Your task to perform on an android device: Go to privacy settings Image 0: 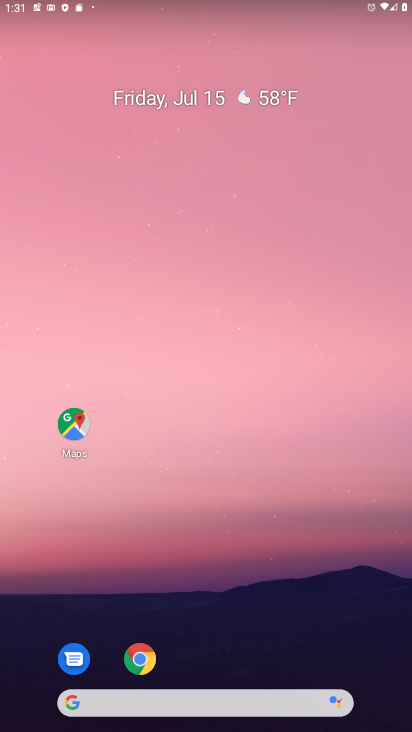
Step 0: drag from (240, 672) to (230, 210)
Your task to perform on an android device: Go to privacy settings Image 1: 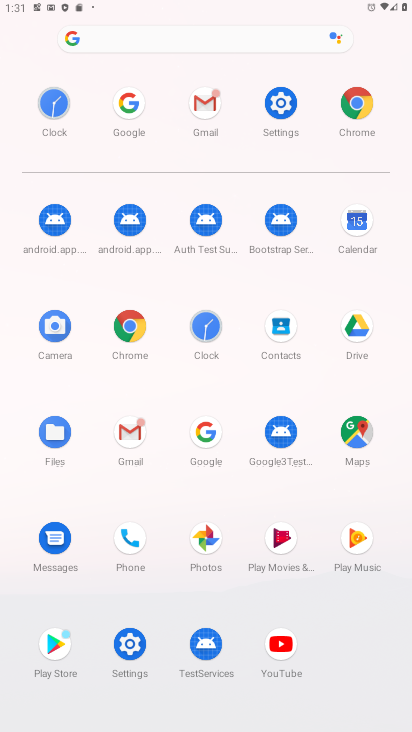
Step 1: click (291, 108)
Your task to perform on an android device: Go to privacy settings Image 2: 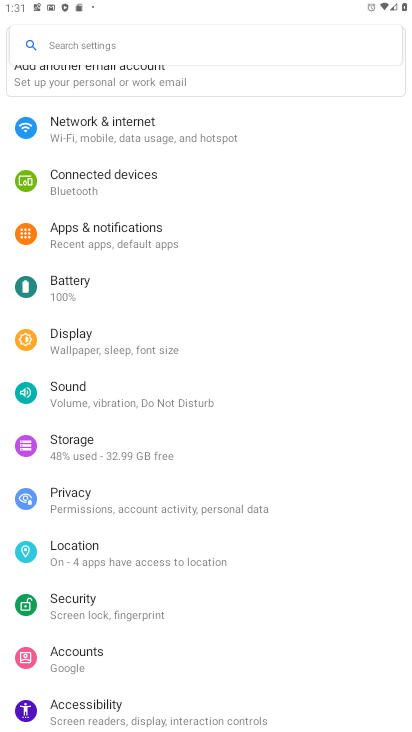
Step 2: click (69, 500)
Your task to perform on an android device: Go to privacy settings Image 3: 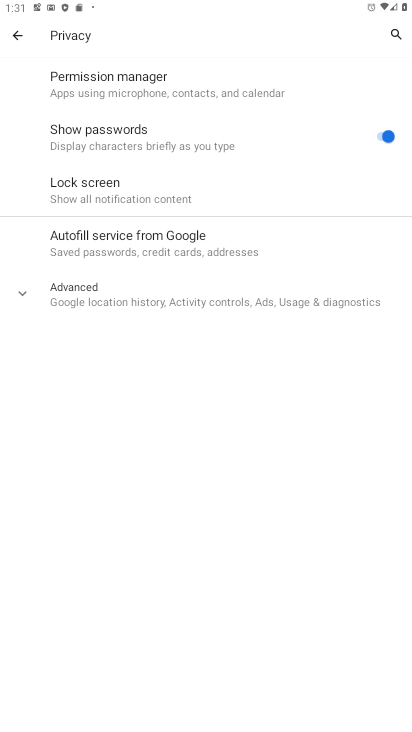
Step 3: task complete